Your task to perform on an android device: Show me the alarms in the clock app Image 0: 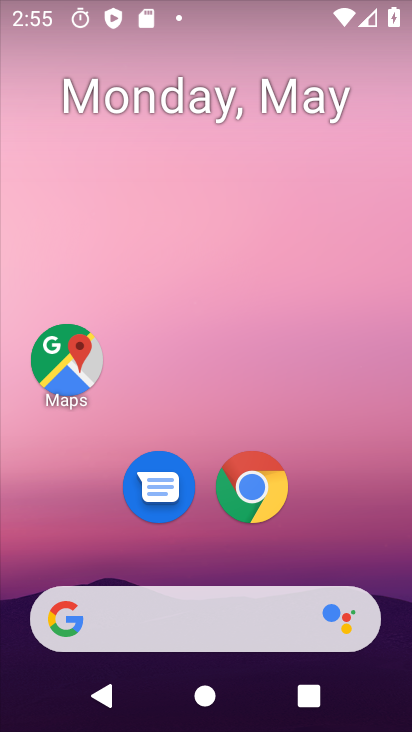
Step 0: drag from (201, 543) to (272, 4)
Your task to perform on an android device: Show me the alarms in the clock app Image 1: 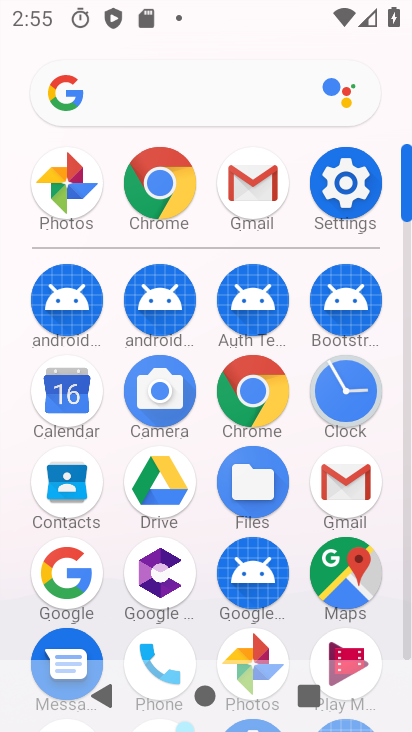
Step 1: click (349, 414)
Your task to perform on an android device: Show me the alarms in the clock app Image 2: 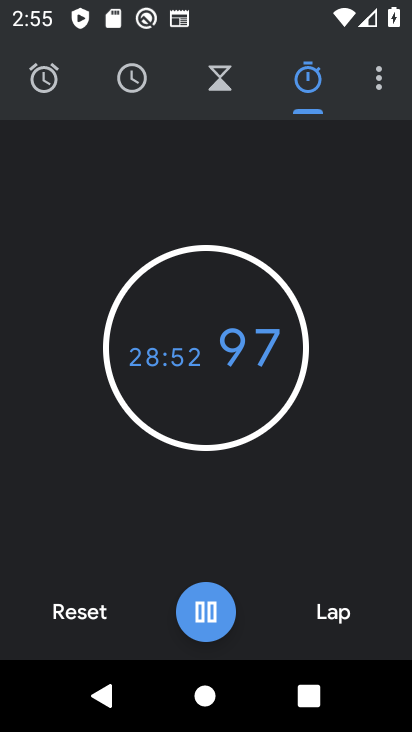
Step 2: click (55, 84)
Your task to perform on an android device: Show me the alarms in the clock app Image 3: 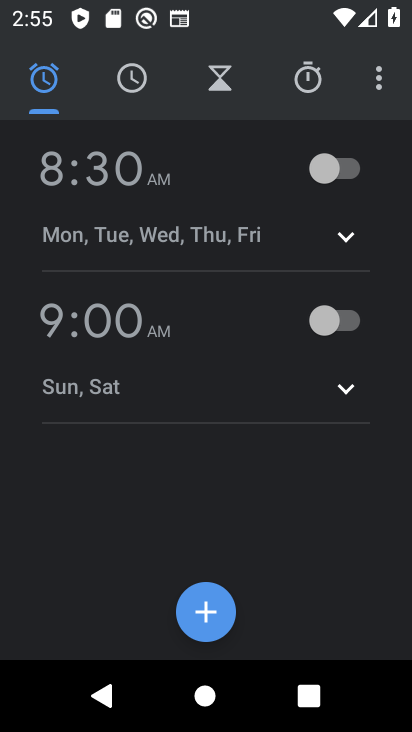
Step 3: task complete